Your task to perform on an android device: Open my contact list Image 0: 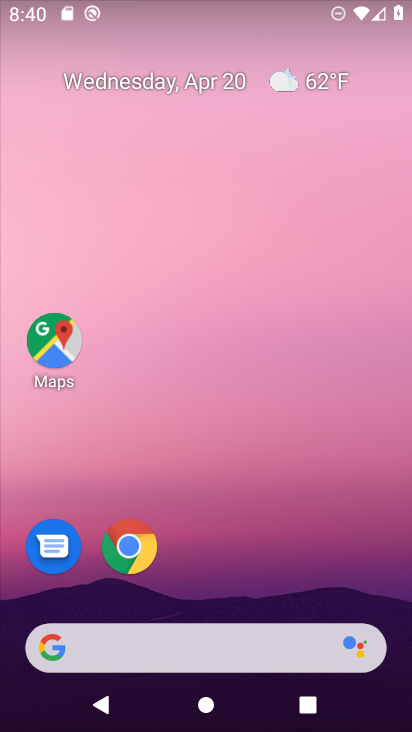
Step 0: drag from (299, 529) to (291, 81)
Your task to perform on an android device: Open my contact list Image 1: 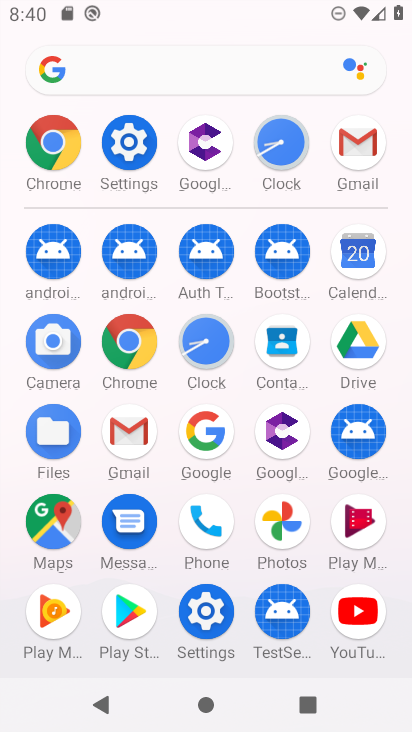
Step 1: click (281, 345)
Your task to perform on an android device: Open my contact list Image 2: 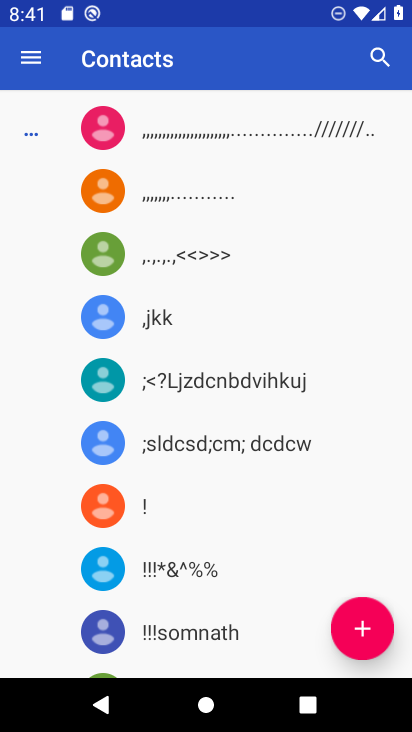
Step 2: task complete